Your task to perform on an android device: open app "DuckDuckGo Privacy Browser" (install if not already installed) and enter user name: "cleaving@outlook.com" and password: "freighters" Image 0: 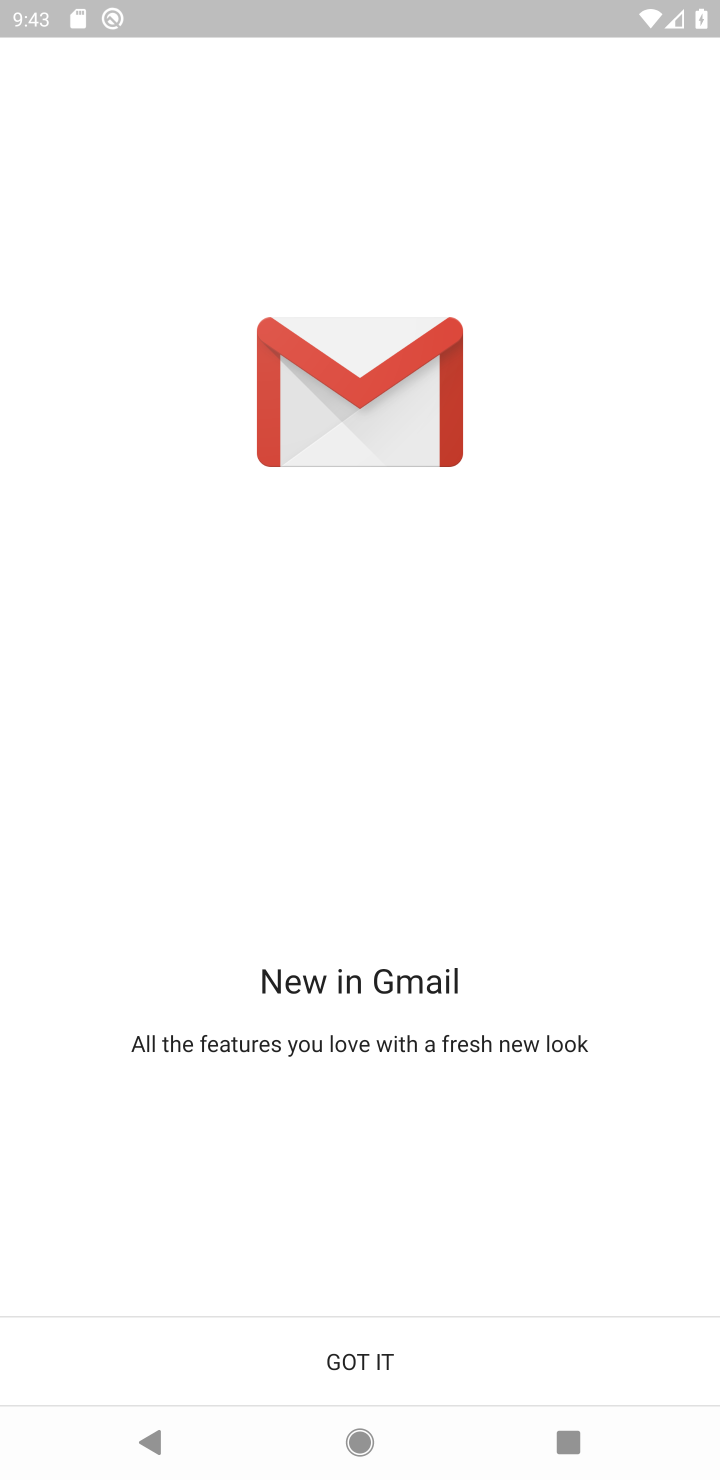
Step 0: press home button
Your task to perform on an android device: open app "DuckDuckGo Privacy Browser" (install if not already installed) and enter user name: "cleaving@outlook.com" and password: "freighters" Image 1: 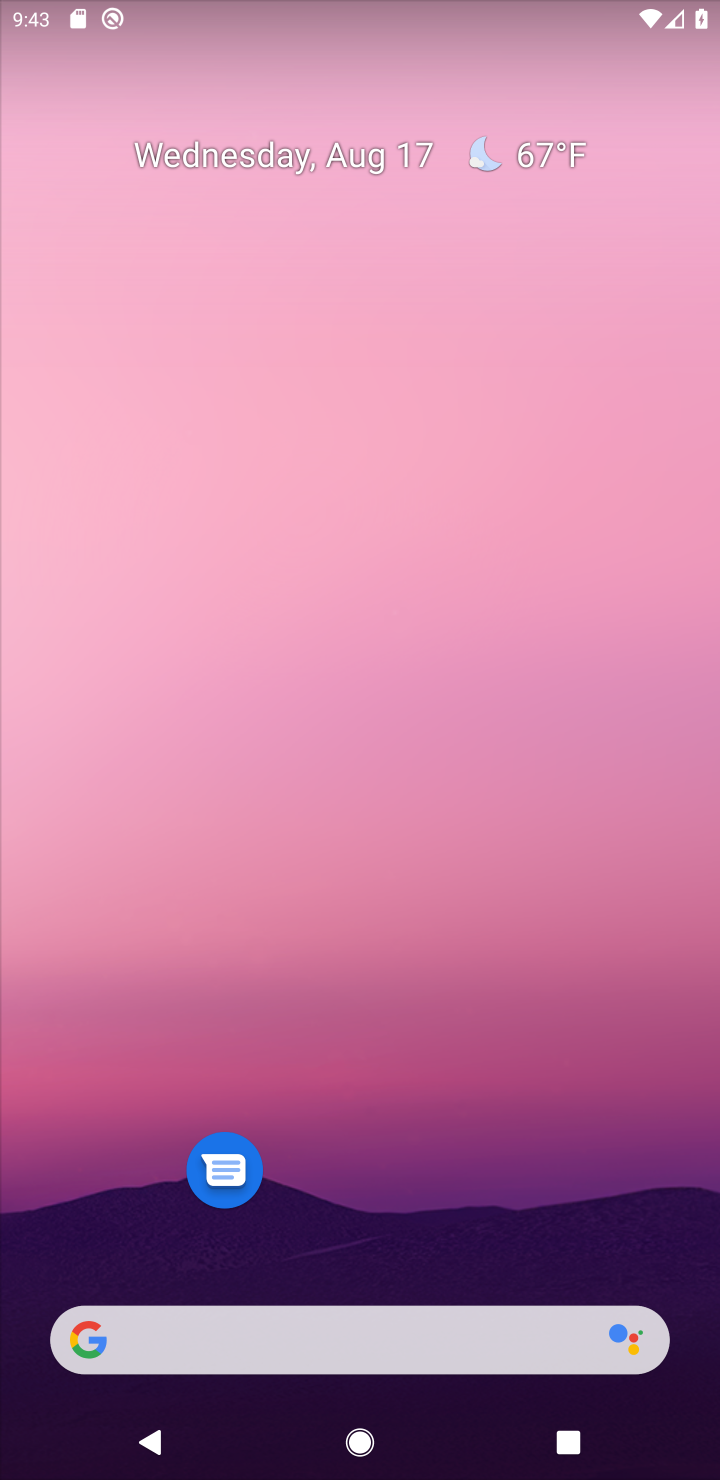
Step 1: drag from (314, 1239) to (154, 161)
Your task to perform on an android device: open app "DuckDuckGo Privacy Browser" (install if not already installed) and enter user name: "cleaving@outlook.com" and password: "freighters" Image 2: 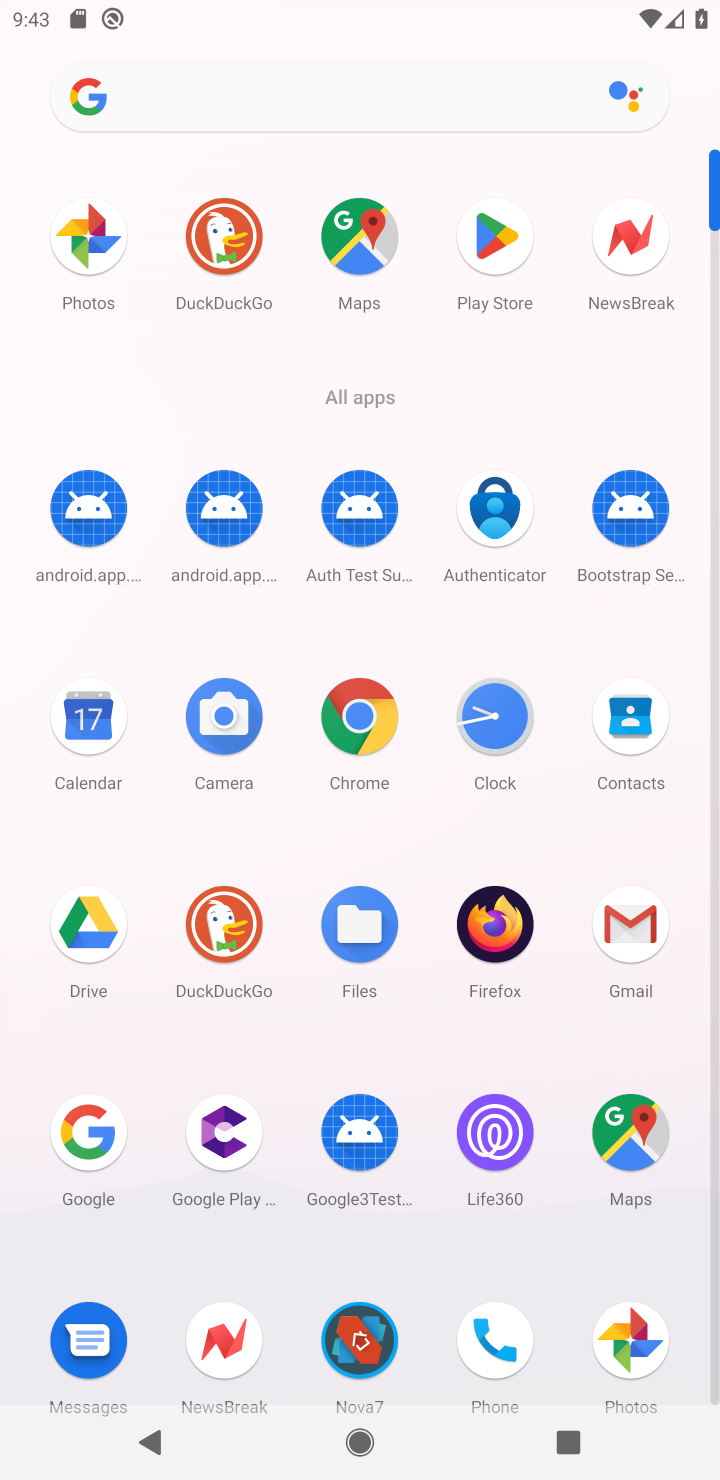
Step 2: click (236, 948)
Your task to perform on an android device: open app "DuckDuckGo Privacy Browser" (install if not already installed) and enter user name: "cleaving@outlook.com" and password: "freighters" Image 3: 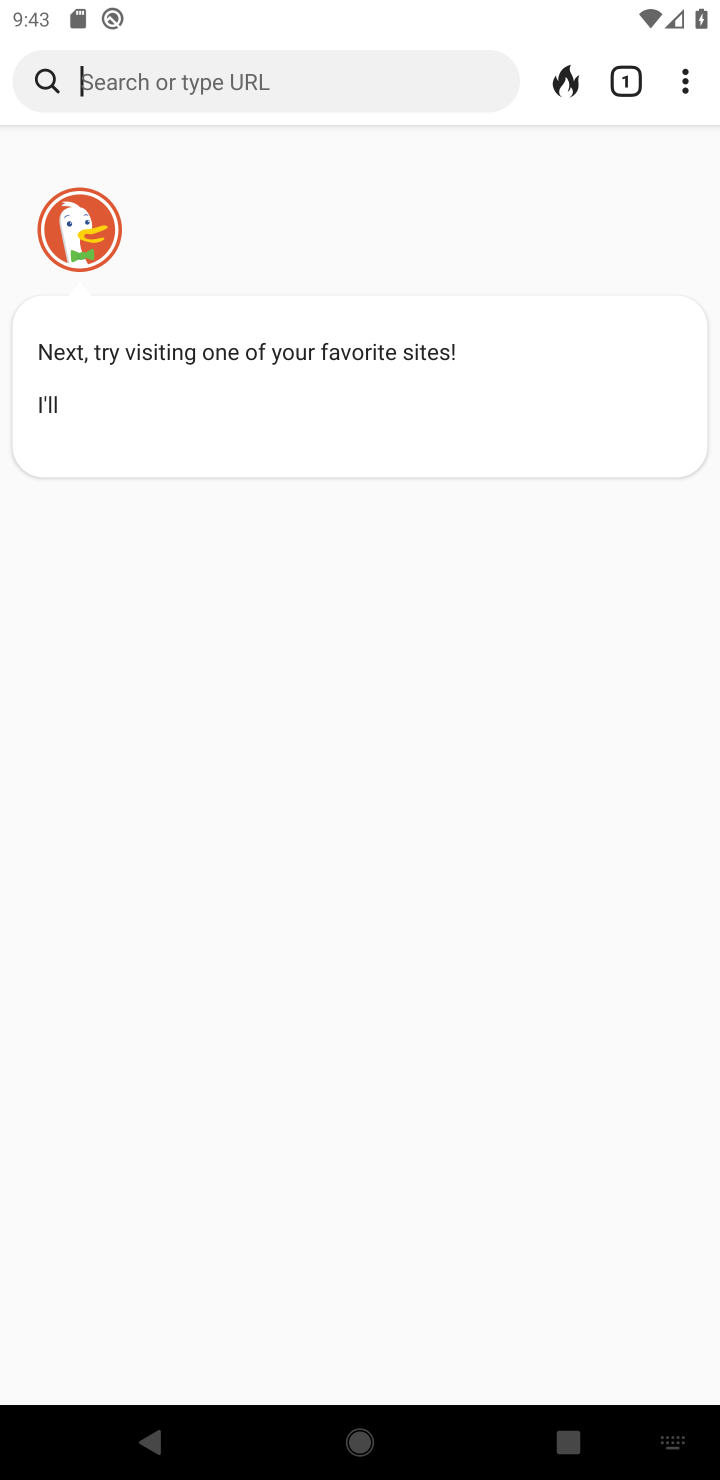
Step 3: click (667, 82)
Your task to perform on an android device: open app "DuckDuckGo Privacy Browser" (install if not already installed) and enter user name: "cleaving@outlook.com" and password: "freighters" Image 4: 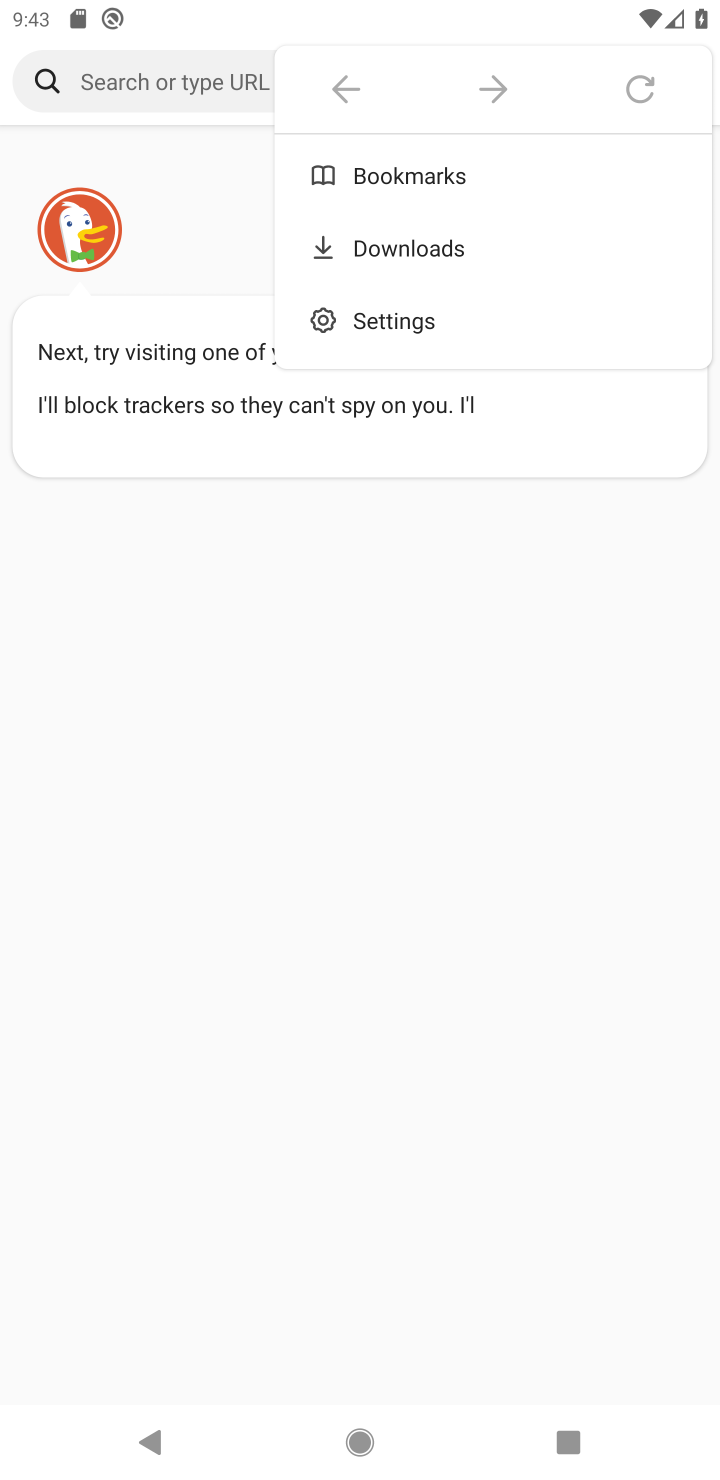
Step 4: click (645, 725)
Your task to perform on an android device: open app "DuckDuckGo Privacy Browser" (install if not already installed) and enter user name: "cleaving@outlook.com" and password: "freighters" Image 5: 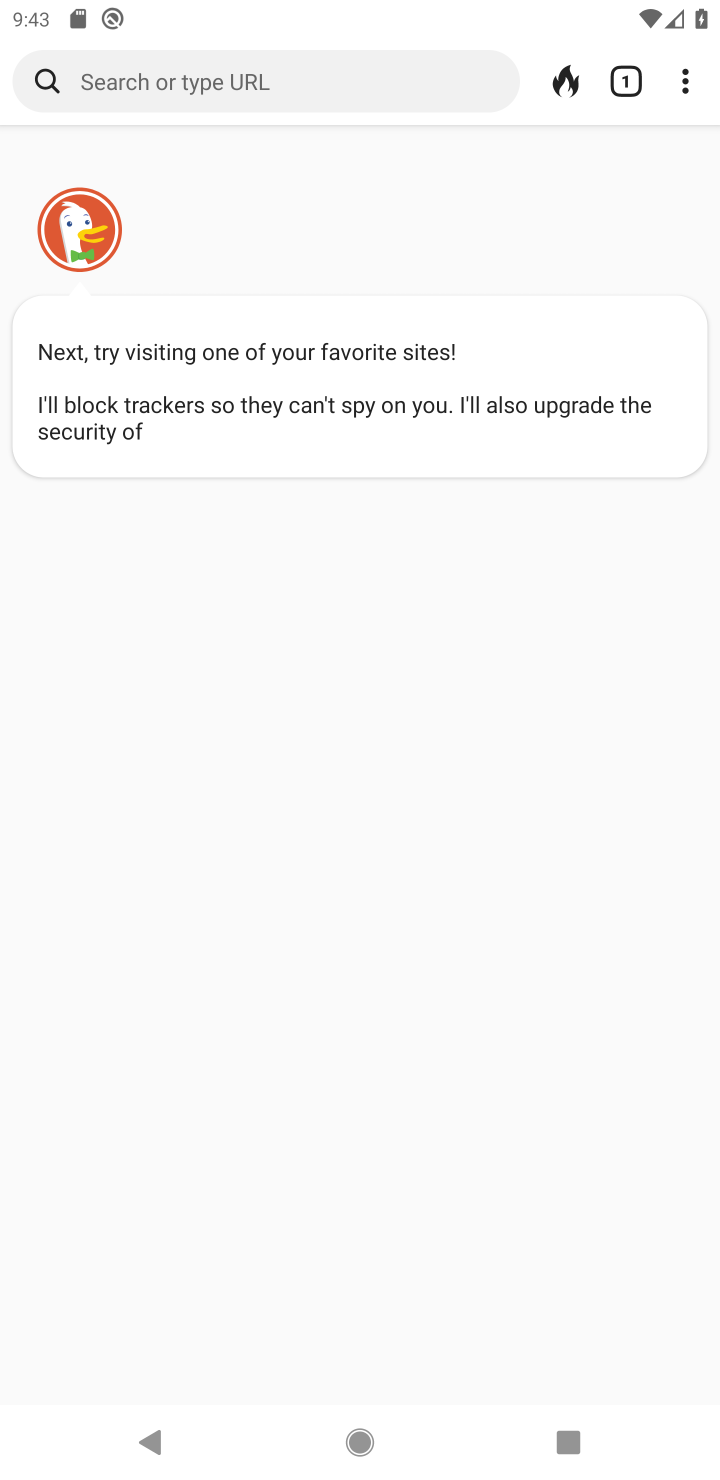
Step 5: task complete